Your task to perform on an android device: turn off picture-in-picture Image 0: 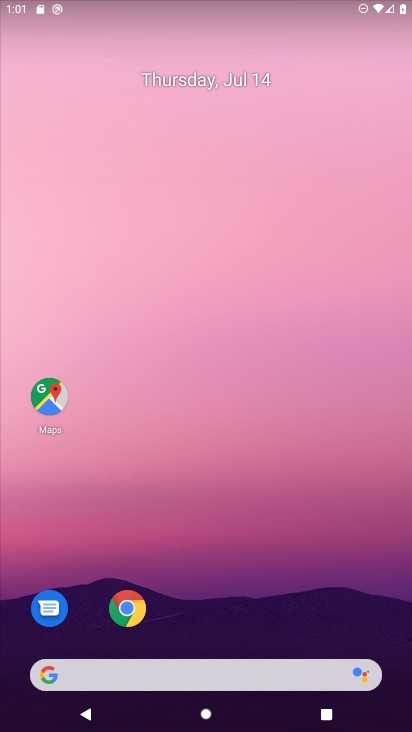
Step 0: drag from (225, 727) to (219, 65)
Your task to perform on an android device: turn off picture-in-picture Image 1: 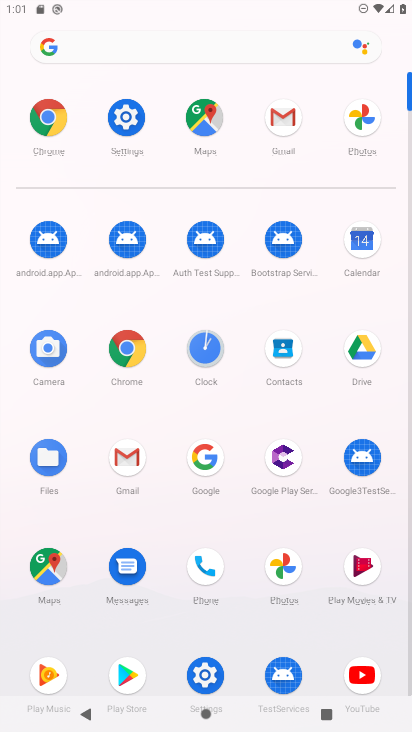
Step 1: click (126, 117)
Your task to perform on an android device: turn off picture-in-picture Image 2: 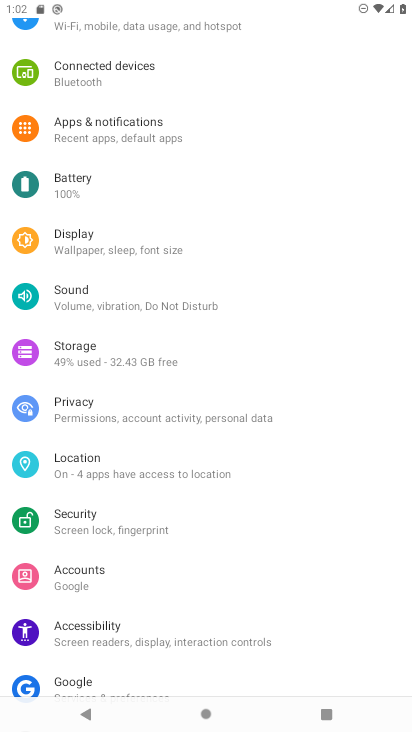
Step 2: click (110, 135)
Your task to perform on an android device: turn off picture-in-picture Image 3: 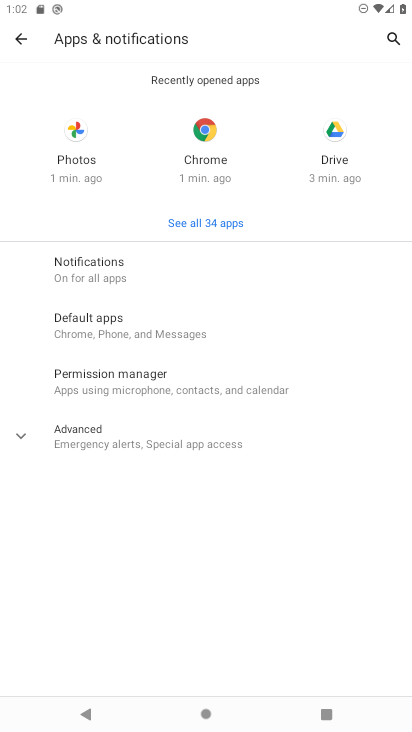
Step 3: click (86, 431)
Your task to perform on an android device: turn off picture-in-picture Image 4: 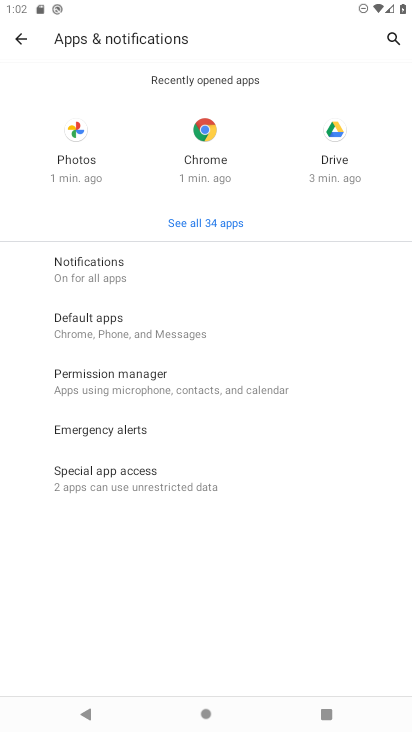
Step 4: click (125, 479)
Your task to perform on an android device: turn off picture-in-picture Image 5: 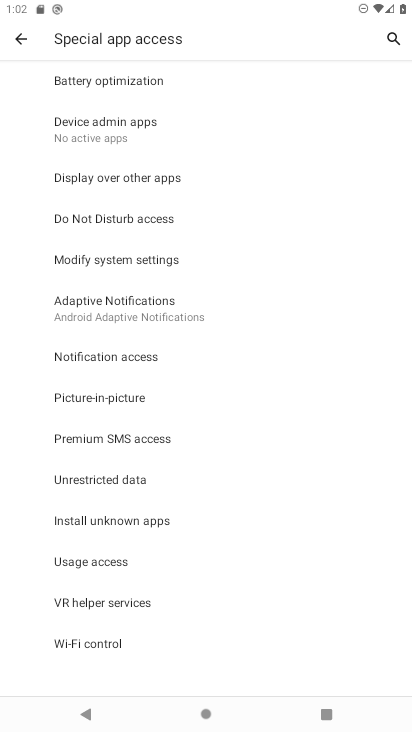
Step 5: click (111, 394)
Your task to perform on an android device: turn off picture-in-picture Image 6: 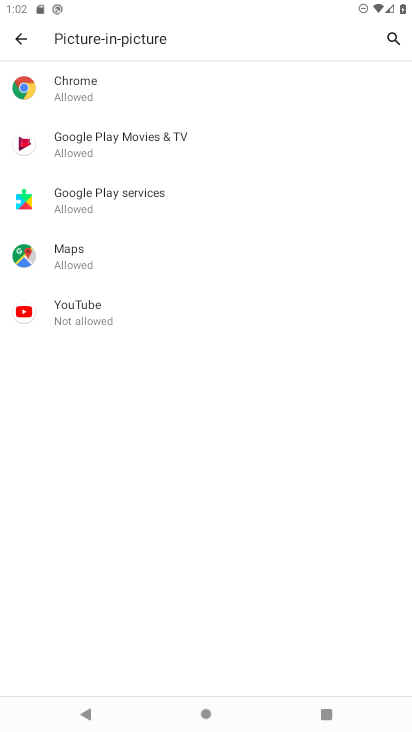
Step 6: click (86, 308)
Your task to perform on an android device: turn off picture-in-picture Image 7: 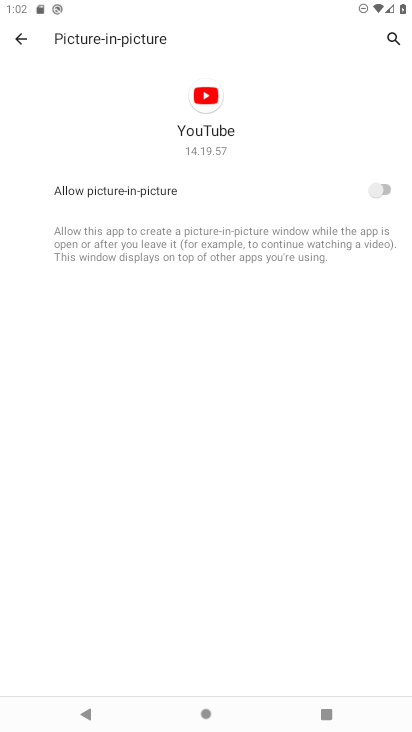
Step 7: task complete